Your task to perform on an android device: Open maps Image 0: 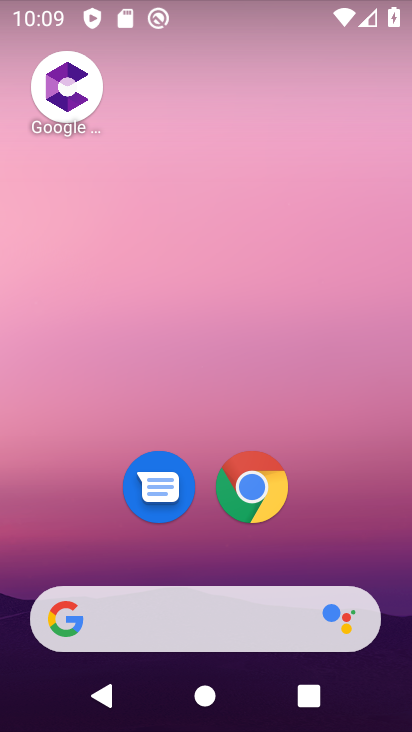
Step 0: drag from (356, 515) to (308, 42)
Your task to perform on an android device: Open maps Image 1: 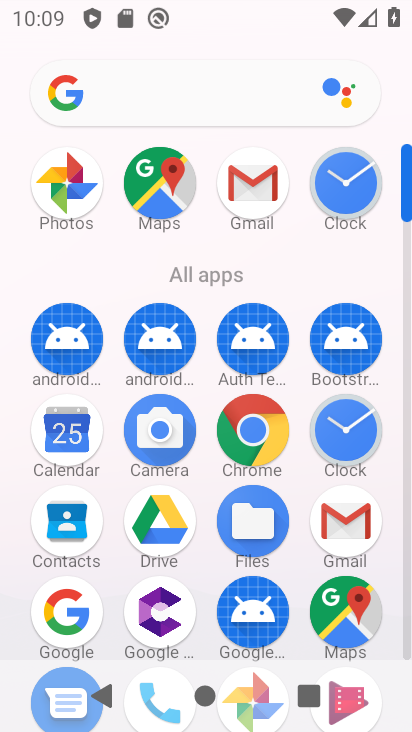
Step 1: click (324, 603)
Your task to perform on an android device: Open maps Image 2: 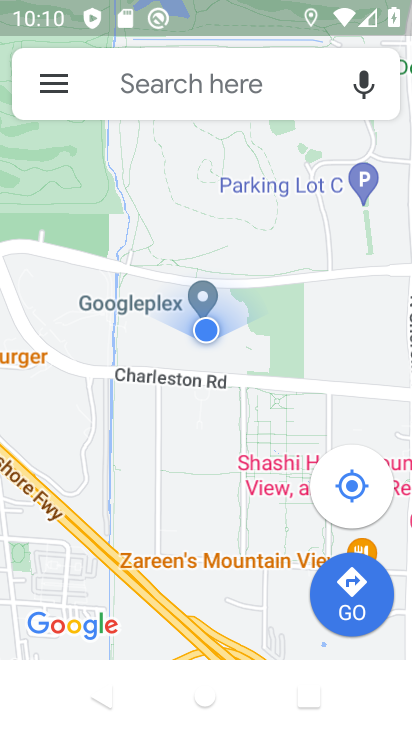
Step 2: task complete